Your task to perform on an android device: toggle notification dots Image 0: 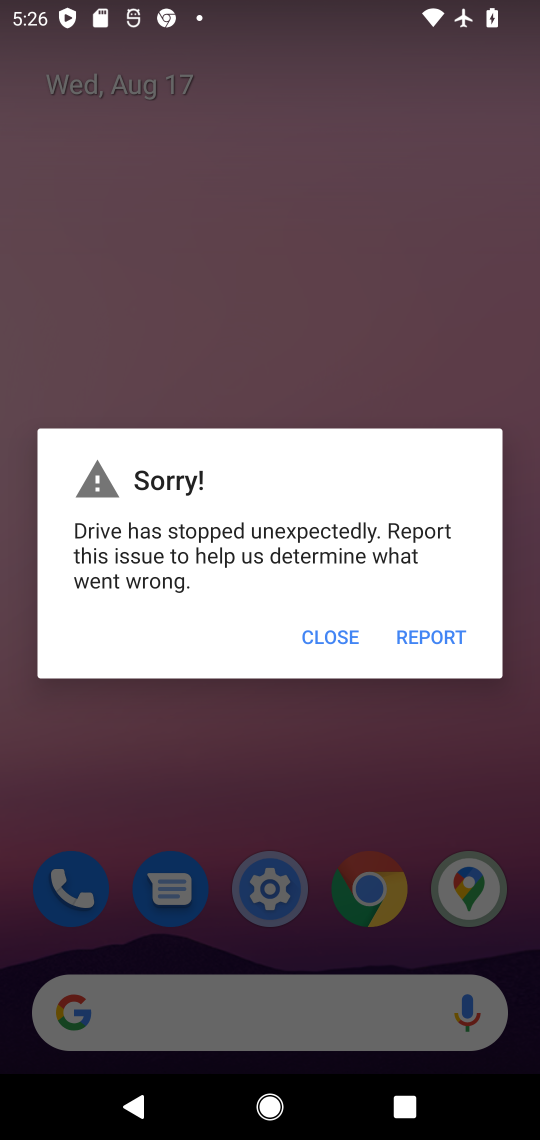
Step 0: press home button
Your task to perform on an android device: toggle notification dots Image 1: 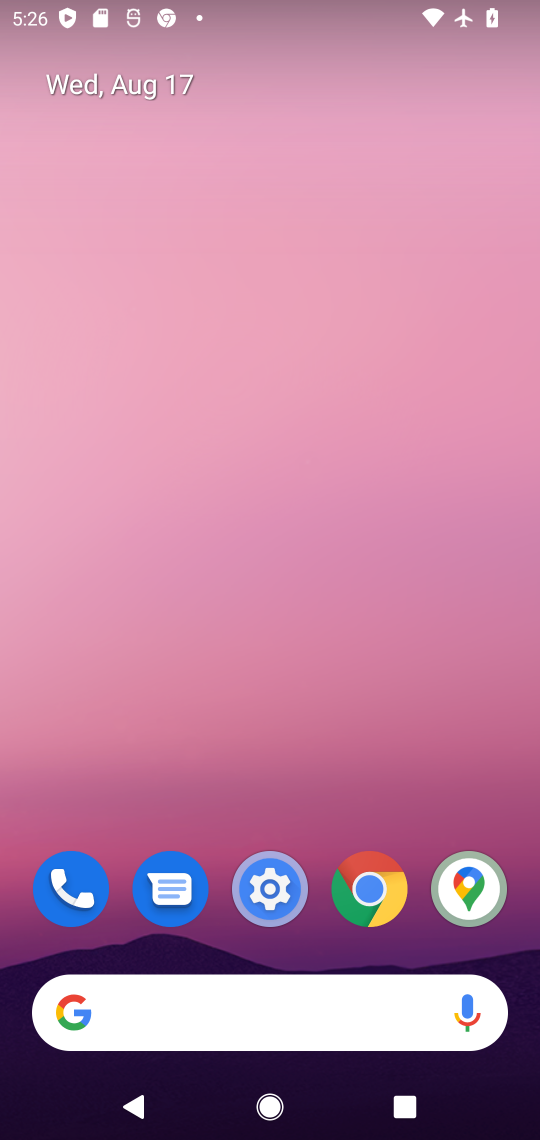
Step 1: click (272, 895)
Your task to perform on an android device: toggle notification dots Image 2: 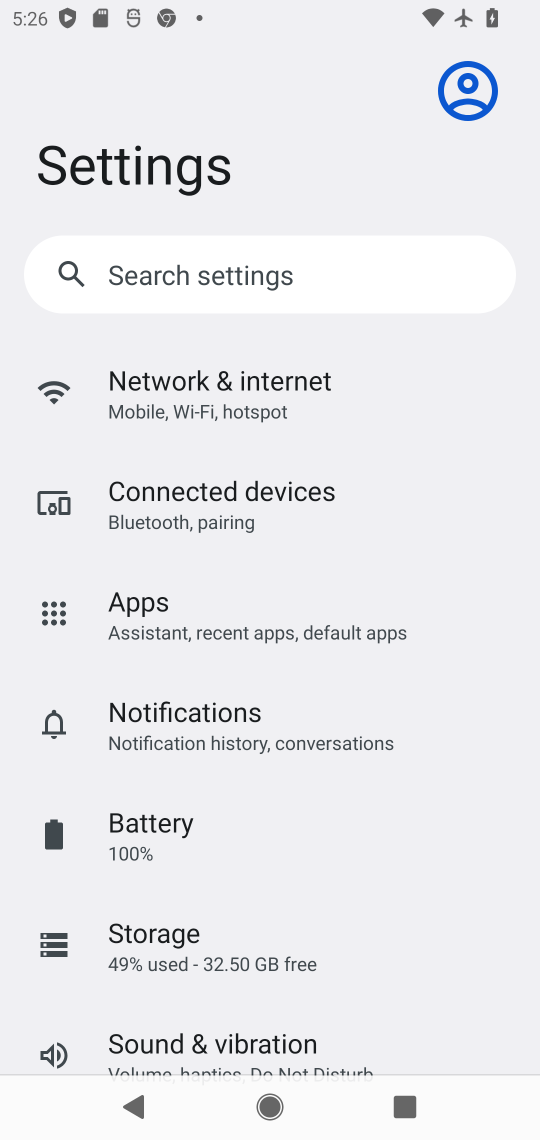
Step 2: click (190, 724)
Your task to perform on an android device: toggle notification dots Image 3: 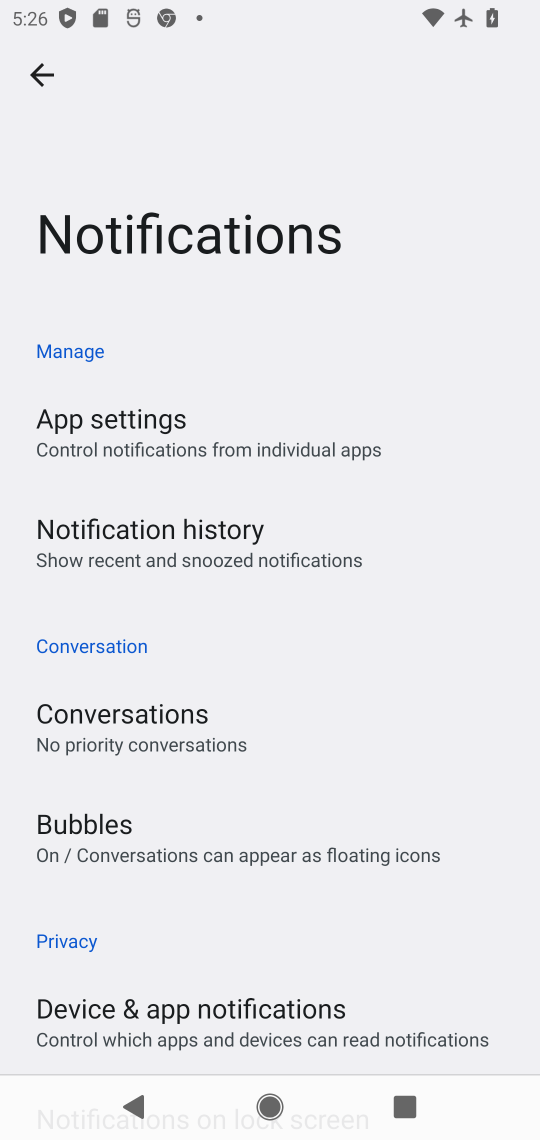
Step 3: drag from (363, 922) to (287, 367)
Your task to perform on an android device: toggle notification dots Image 4: 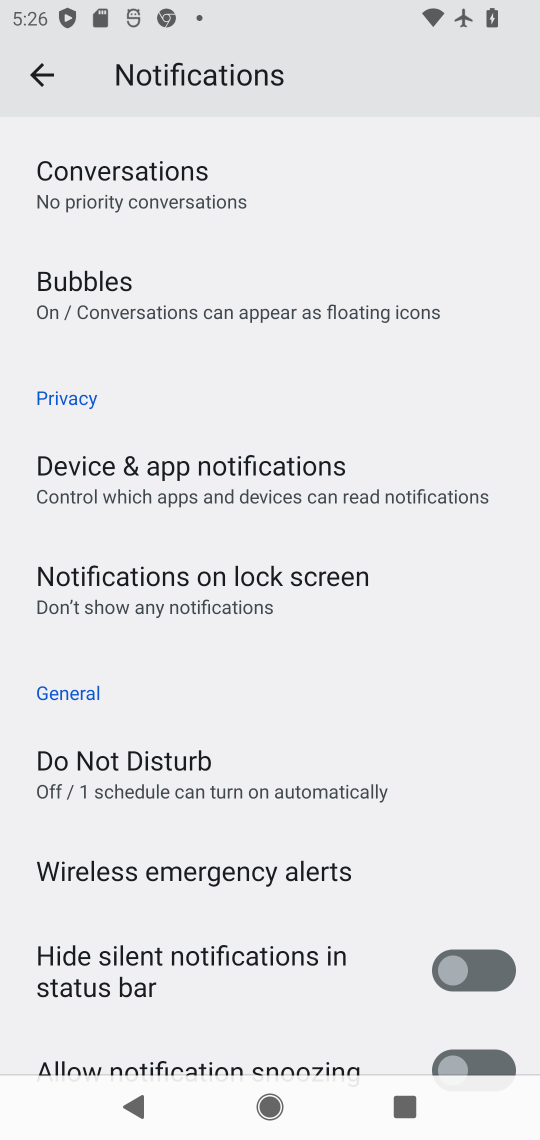
Step 4: drag from (400, 820) to (333, 333)
Your task to perform on an android device: toggle notification dots Image 5: 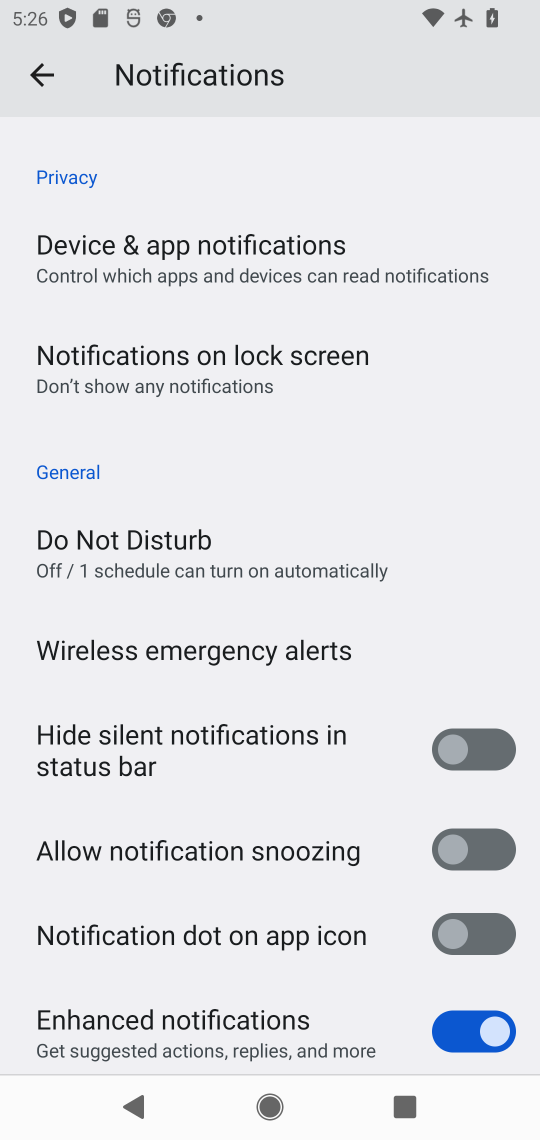
Step 5: drag from (297, 795) to (266, 359)
Your task to perform on an android device: toggle notification dots Image 6: 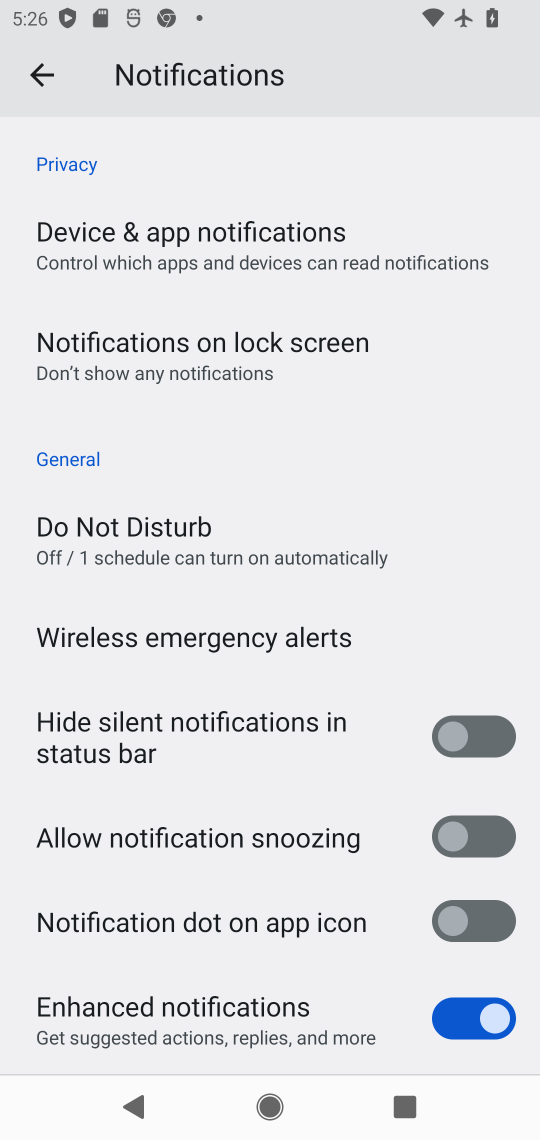
Step 6: click (457, 918)
Your task to perform on an android device: toggle notification dots Image 7: 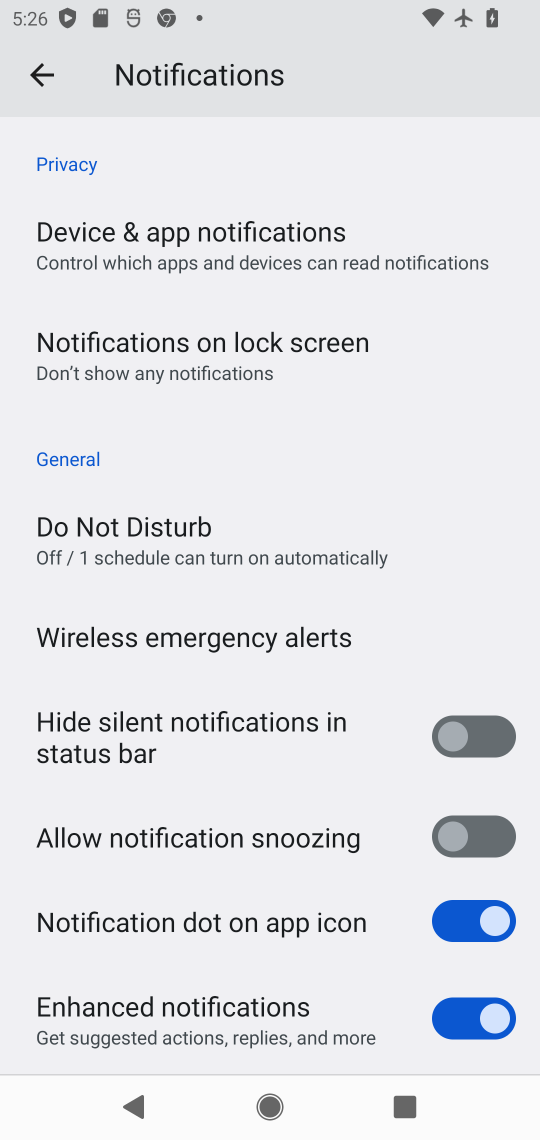
Step 7: task complete